Your task to perform on an android device: Open privacy settings Image 0: 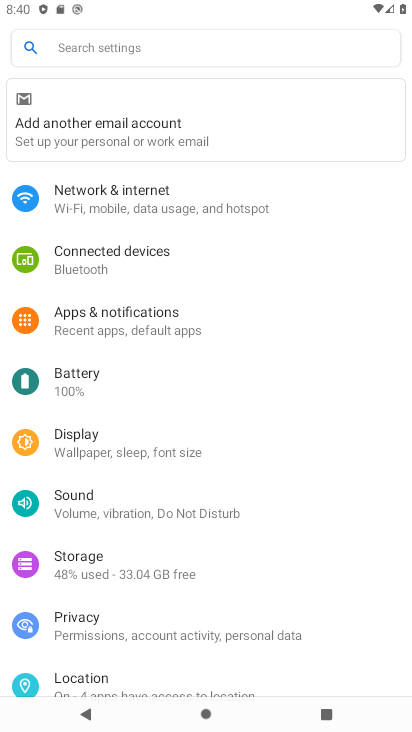
Step 0: click (164, 621)
Your task to perform on an android device: Open privacy settings Image 1: 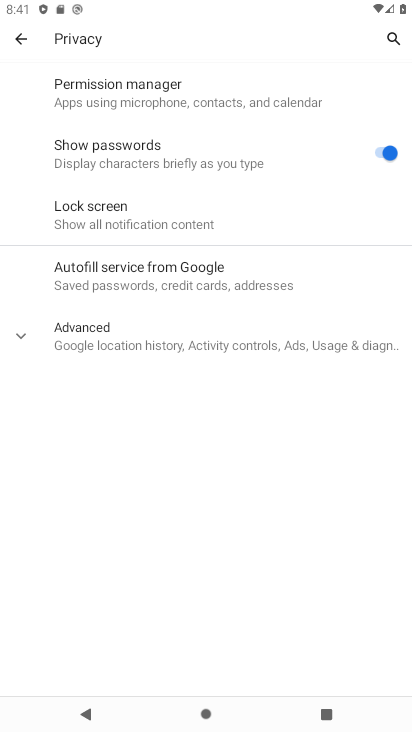
Step 1: task complete